Your task to perform on an android device: turn on data saver in the chrome app Image 0: 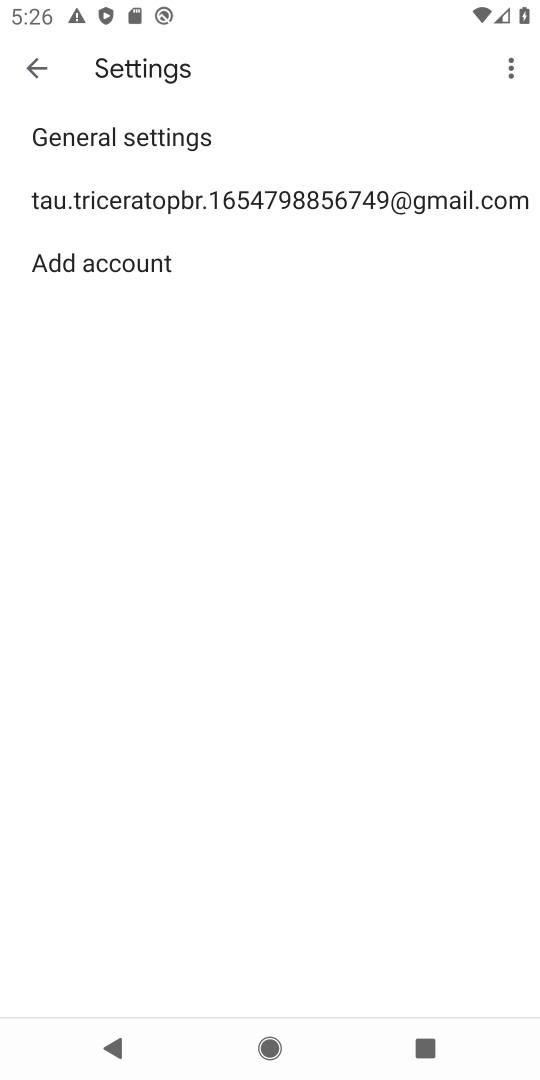
Step 0: press home button
Your task to perform on an android device: turn on data saver in the chrome app Image 1: 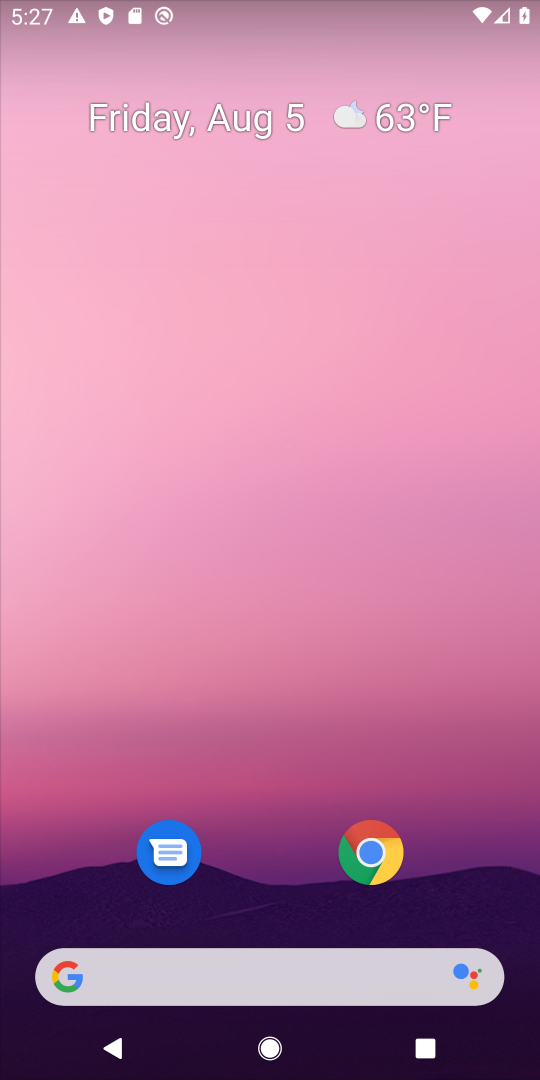
Step 1: click (361, 863)
Your task to perform on an android device: turn on data saver in the chrome app Image 2: 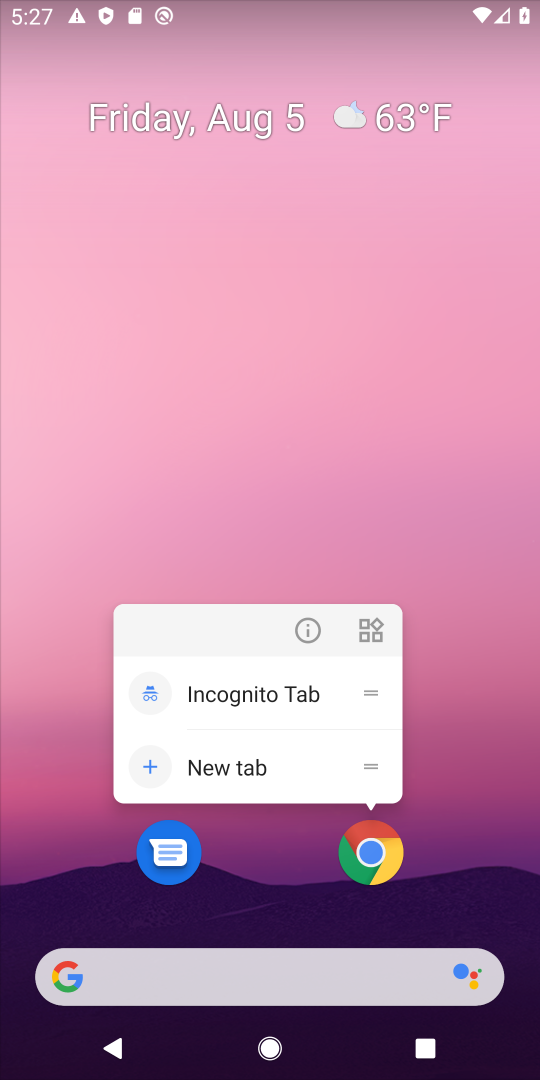
Step 2: click (391, 846)
Your task to perform on an android device: turn on data saver in the chrome app Image 3: 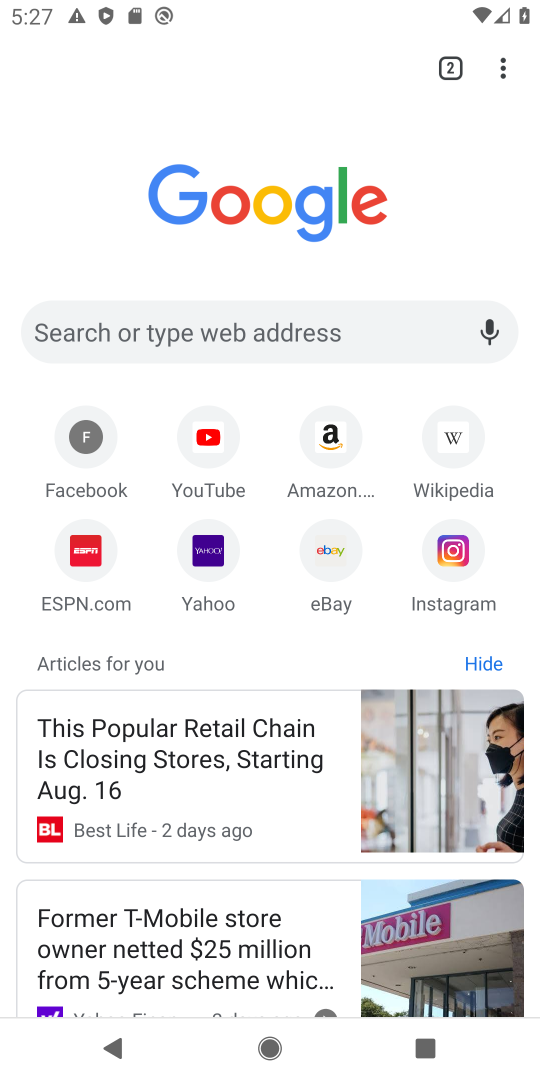
Step 3: click (496, 69)
Your task to perform on an android device: turn on data saver in the chrome app Image 4: 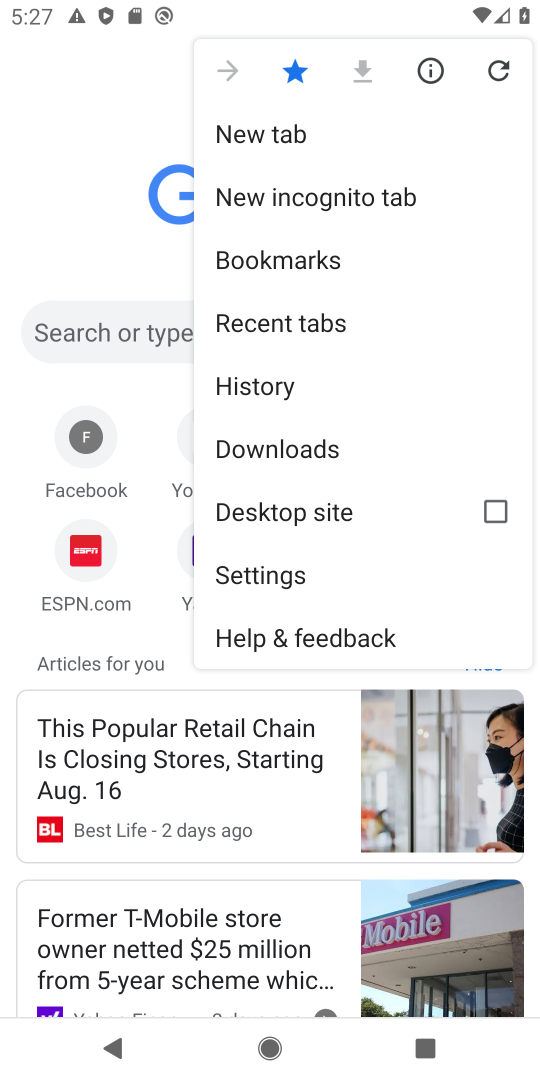
Step 4: click (274, 577)
Your task to perform on an android device: turn on data saver in the chrome app Image 5: 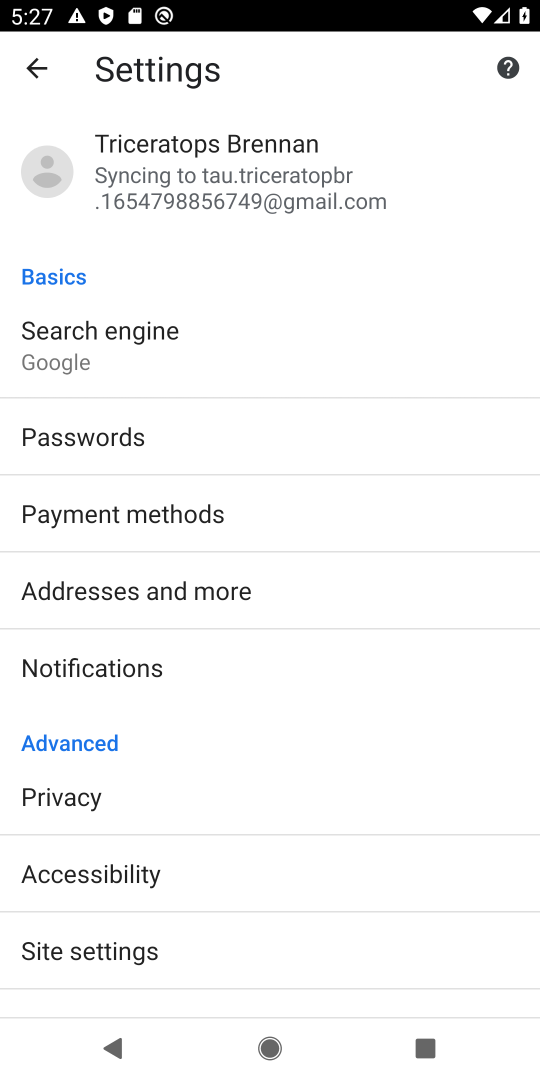
Step 5: drag from (138, 919) to (183, 680)
Your task to perform on an android device: turn on data saver in the chrome app Image 6: 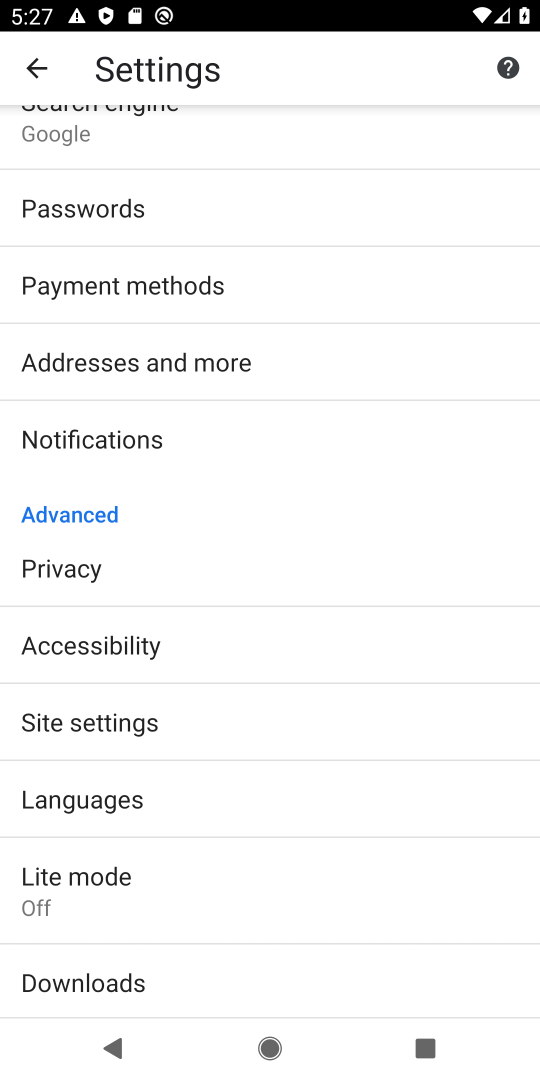
Step 6: click (81, 880)
Your task to perform on an android device: turn on data saver in the chrome app Image 7: 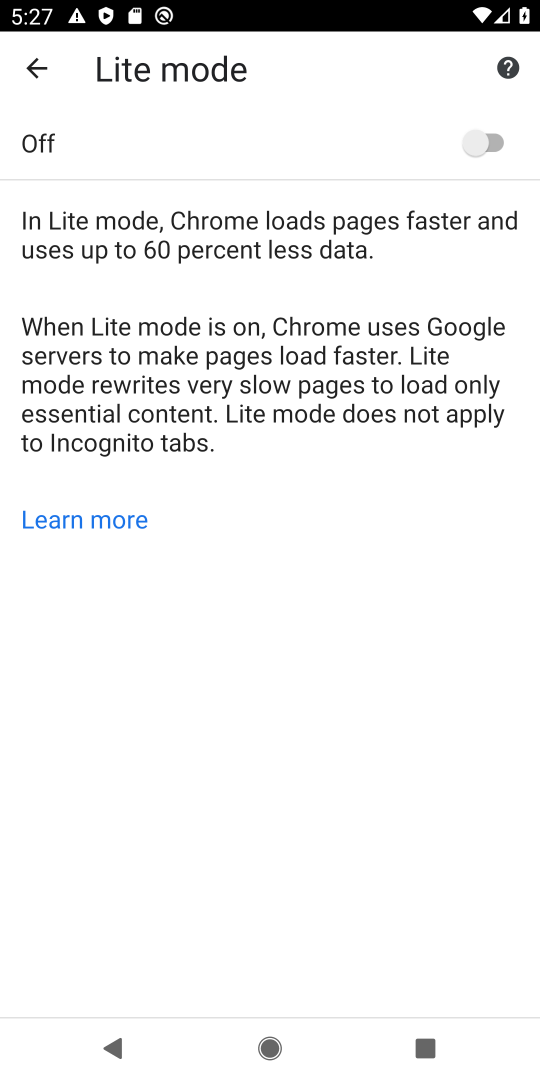
Step 7: click (498, 154)
Your task to perform on an android device: turn on data saver in the chrome app Image 8: 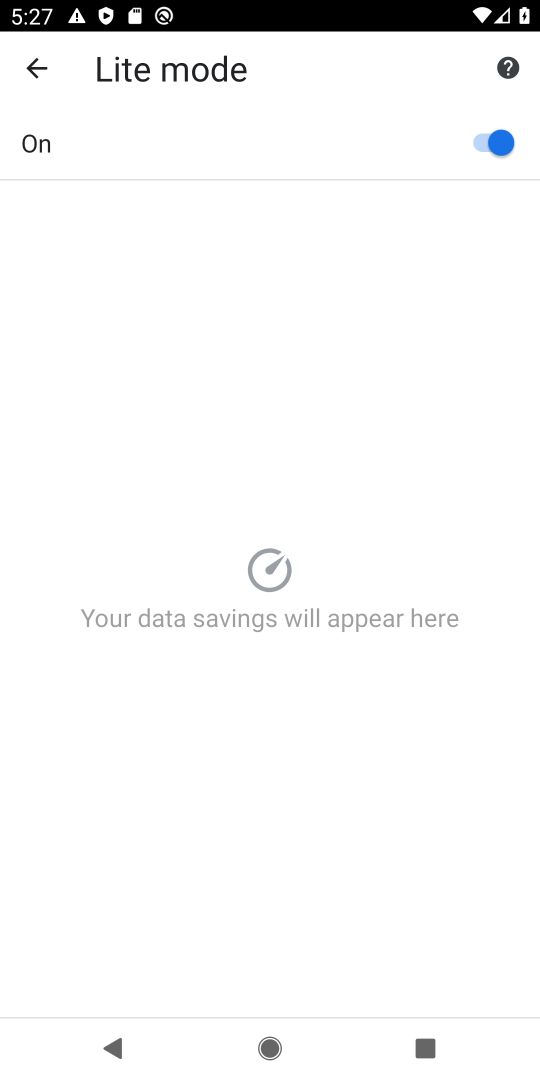
Step 8: task complete